Your task to perform on an android device: Go to display settings Image 0: 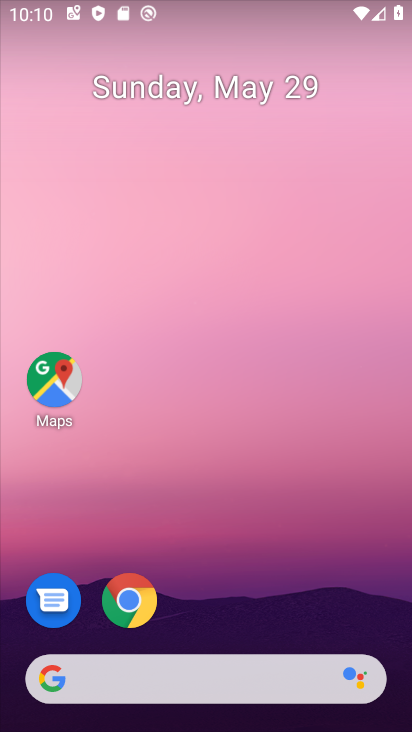
Step 0: drag from (216, 726) to (186, 145)
Your task to perform on an android device: Go to display settings Image 1: 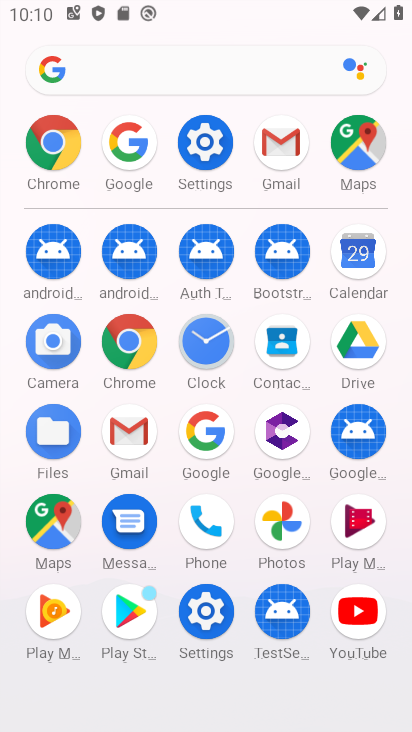
Step 1: click (210, 138)
Your task to perform on an android device: Go to display settings Image 2: 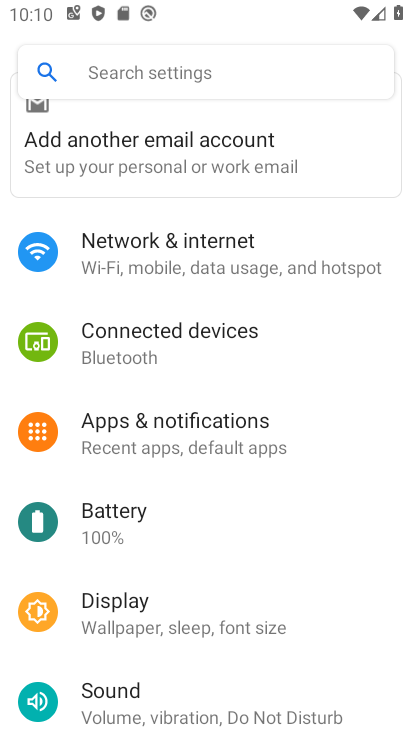
Step 2: click (119, 609)
Your task to perform on an android device: Go to display settings Image 3: 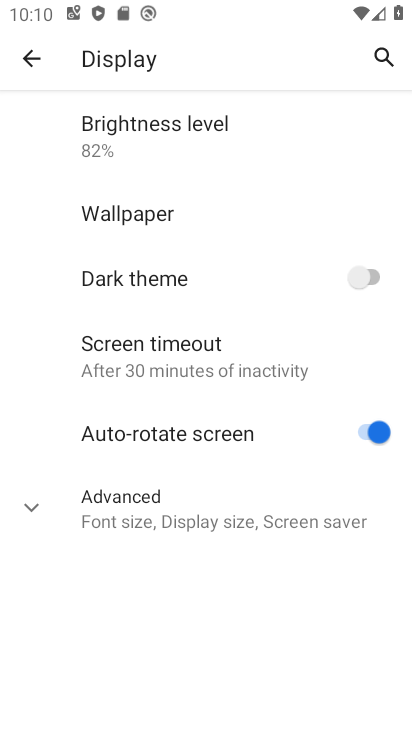
Step 3: task complete